Your task to perform on an android device: open app "Flipkart Online Shopping App" (install if not already installed), go to login, and select forgot password Image 0: 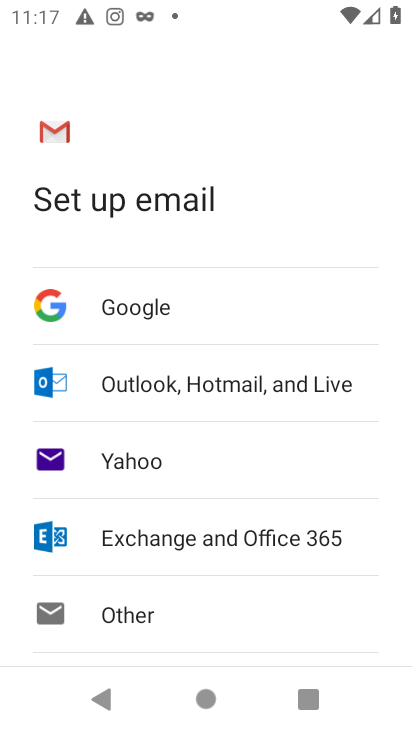
Step 0: press home button
Your task to perform on an android device: open app "Flipkart Online Shopping App" (install if not already installed), go to login, and select forgot password Image 1: 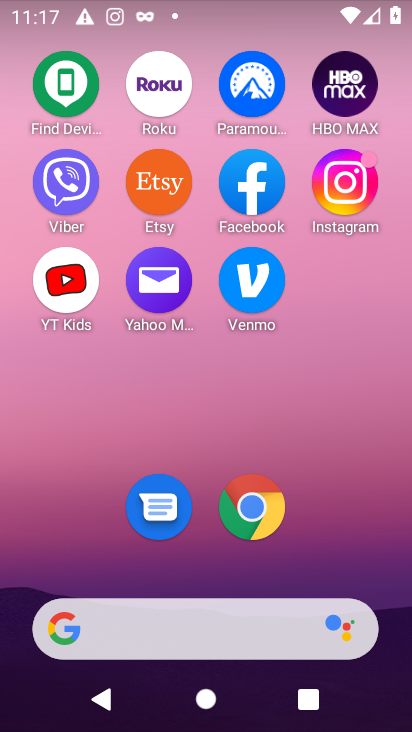
Step 1: drag from (189, 637) to (239, 125)
Your task to perform on an android device: open app "Flipkart Online Shopping App" (install if not already installed), go to login, and select forgot password Image 2: 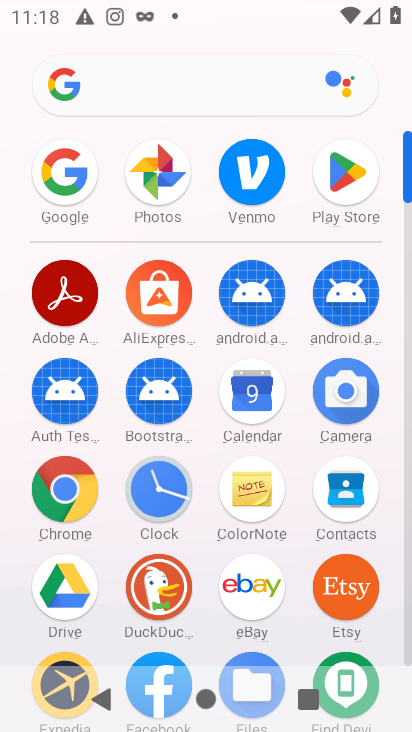
Step 2: click (347, 174)
Your task to perform on an android device: open app "Flipkart Online Shopping App" (install if not already installed), go to login, and select forgot password Image 3: 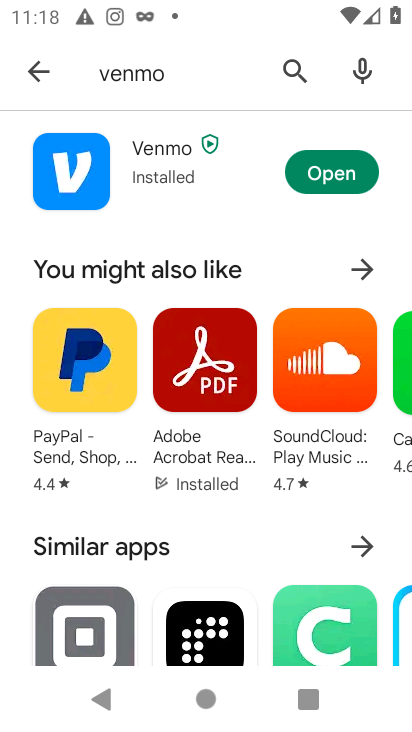
Step 3: click (289, 61)
Your task to perform on an android device: open app "Flipkart Online Shopping App" (install if not already installed), go to login, and select forgot password Image 4: 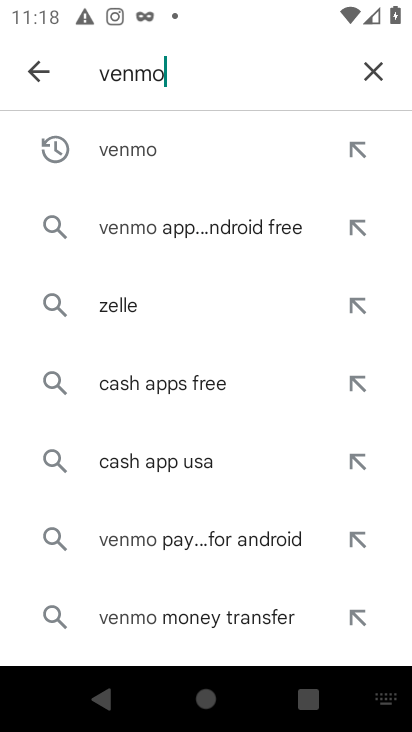
Step 4: click (379, 68)
Your task to perform on an android device: open app "Flipkart Online Shopping App" (install if not already installed), go to login, and select forgot password Image 5: 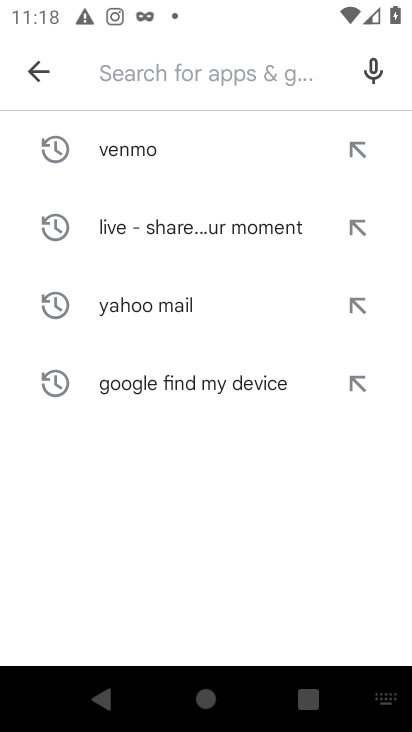
Step 5: type "Flipkart Online Shopping App"
Your task to perform on an android device: open app "Flipkart Online Shopping App" (install if not already installed), go to login, and select forgot password Image 6: 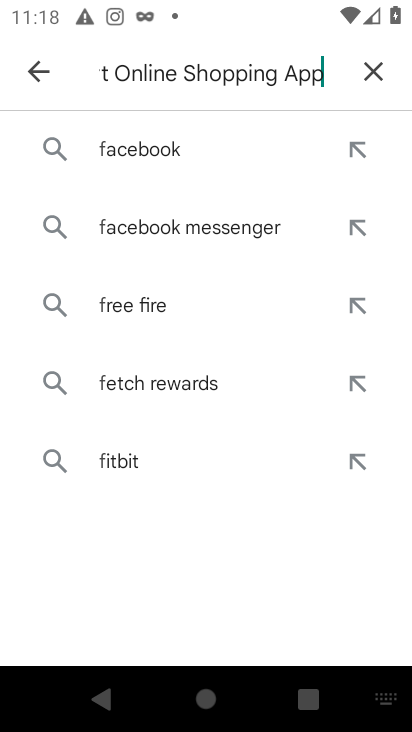
Step 6: type ""
Your task to perform on an android device: open app "Flipkart Online Shopping App" (install if not already installed), go to login, and select forgot password Image 7: 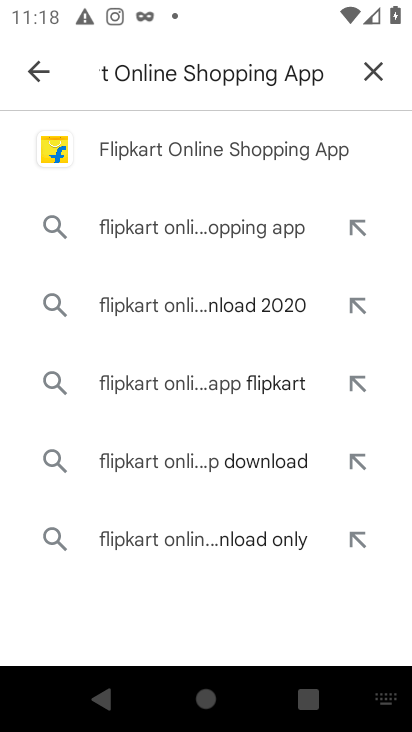
Step 7: click (180, 151)
Your task to perform on an android device: open app "Flipkart Online Shopping App" (install if not already installed), go to login, and select forgot password Image 8: 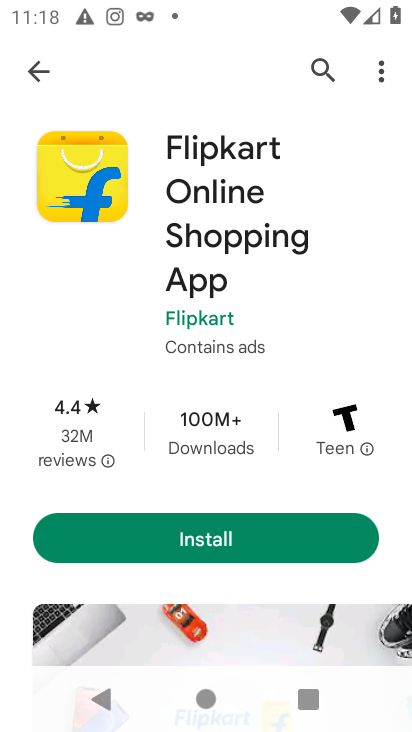
Step 8: click (242, 534)
Your task to perform on an android device: open app "Flipkart Online Shopping App" (install if not already installed), go to login, and select forgot password Image 9: 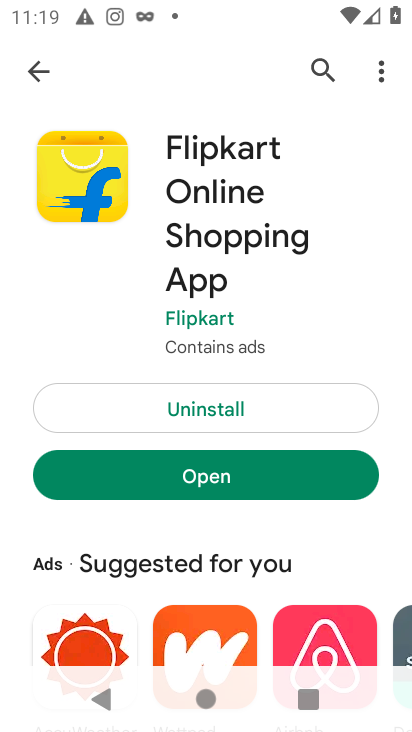
Step 9: click (227, 482)
Your task to perform on an android device: open app "Flipkart Online Shopping App" (install if not already installed), go to login, and select forgot password Image 10: 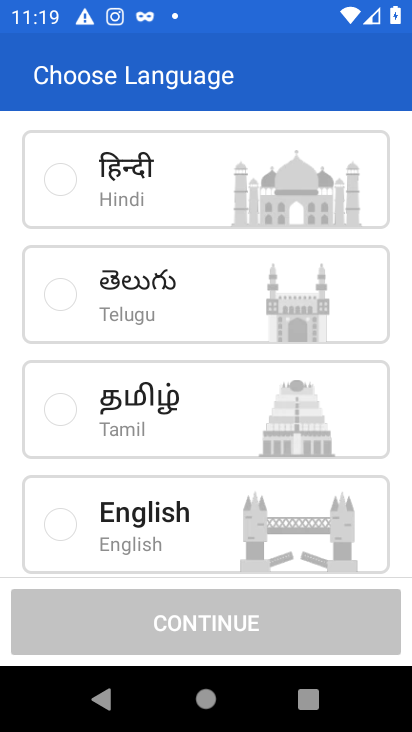
Step 10: click (60, 182)
Your task to perform on an android device: open app "Flipkart Online Shopping App" (install if not already installed), go to login, and select forgot password Image 11: 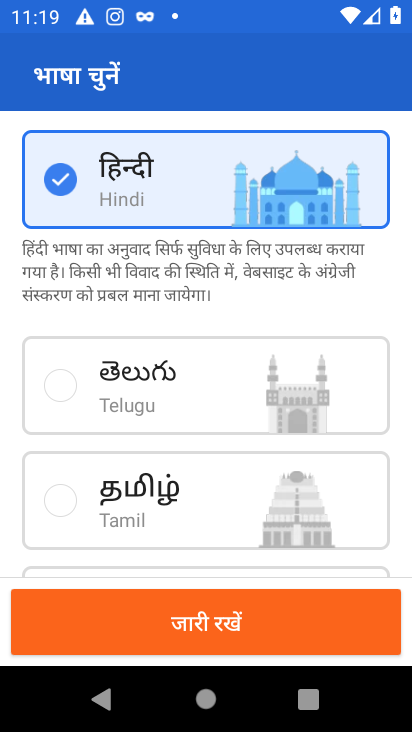
Step 11: click (237, 625)
Your task to perform on an android device: open app "Flipkart Online Shopping App" (install if not already installed), go to login, and select forgot password Image 12: 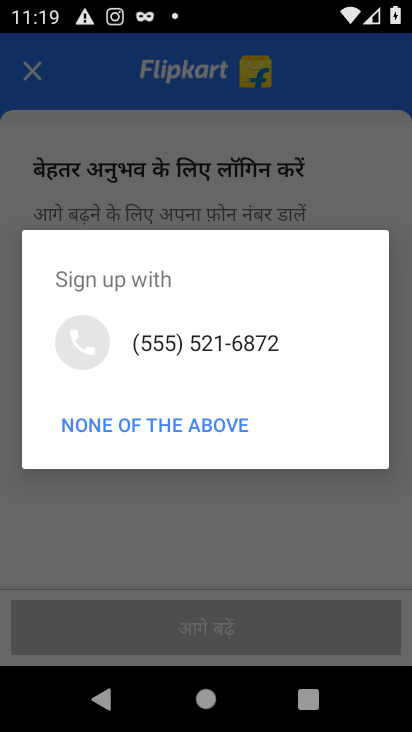
Step 12: click (219, 340)
Your task to perform on an android device: open app "Flipkart Online Shopping App" (install if not already installed), go to login, and select forgot password Image 13: 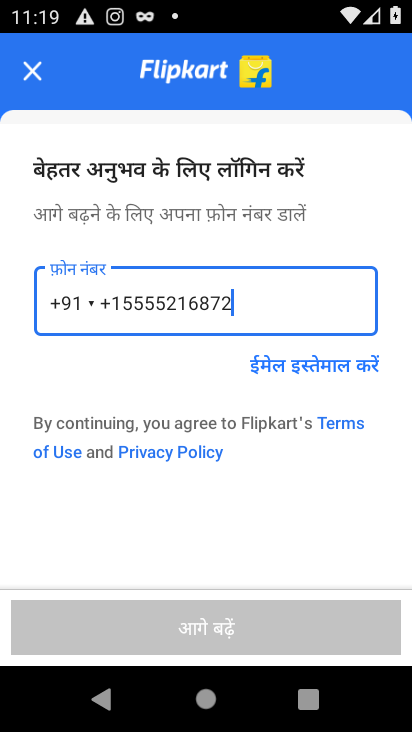
Step 13: click (315, 369)
Your task to perform on an android device: open app "Flipkart Online Shopping App" (install if not already installed), go to login, and select forgot password Image 14: 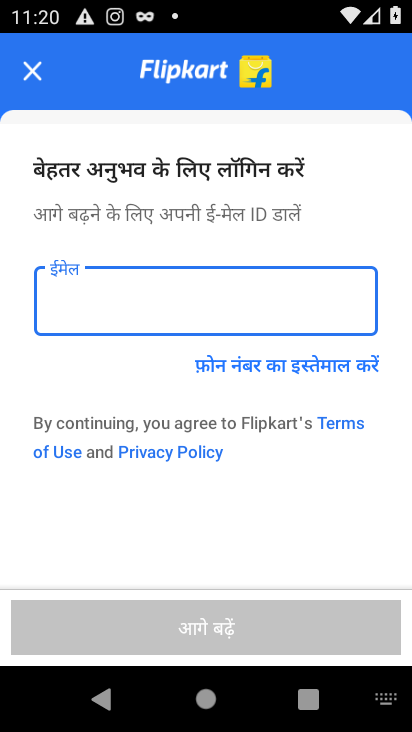
Step 14: drag from (167, 504) to (227, 324)
Your task to perform on an android device: open app "Flipkart Online Shopping App" (install if not already installed), go to login, and select forgot password Image 15: 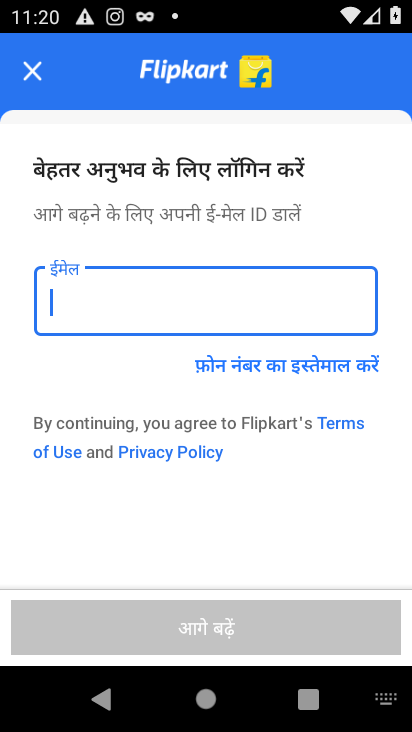
Step 15: click (188, 204)
Your task to perform on an android device: open app "Flipkart Online Shopping App" (install if not already installed), go to login, and select forgot password Image 16: 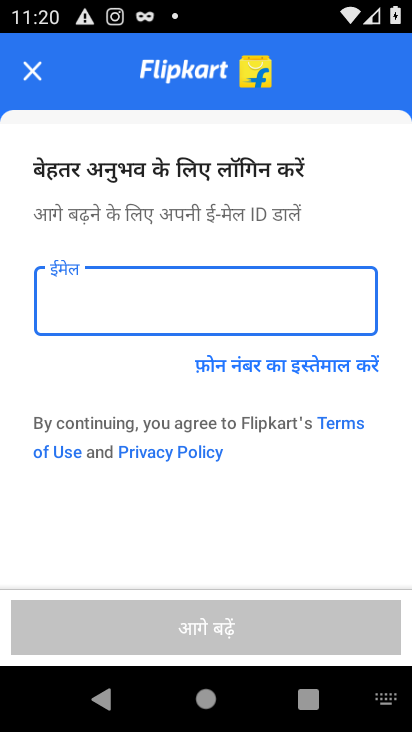
Step 16: drag from (251, 569) to (263, 251)
Your task to perform on an android device: open app "Flipkart Online Shopping App" (install if not already installed), go to login, and select forgot password Image 17: 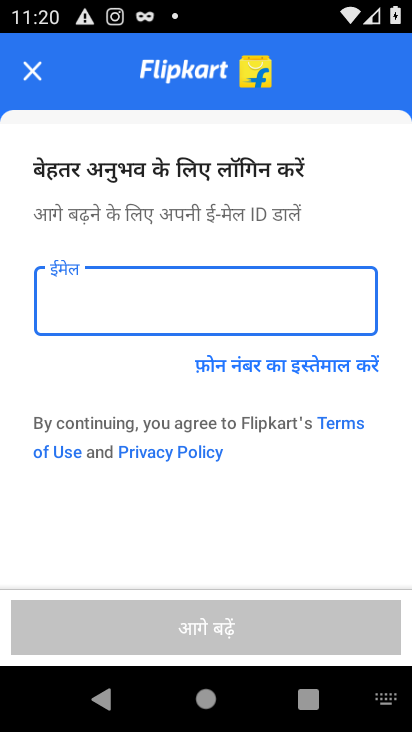
Step 17: drag from (226, 168) to (273, 497)
Your task to perform on an android device: open app "Flipkart Online Shopping App" (install if not already installed), go to login, and select forgot password Image 18: 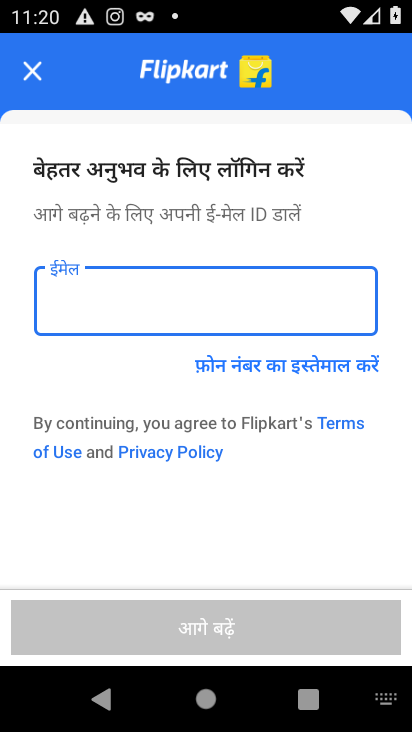
Step 18: click (202, 336)
Your task to perform on an android device: open app "Flipkart Online Shopping App" (install if not already installed), go to login, and select forgot password Image 19: 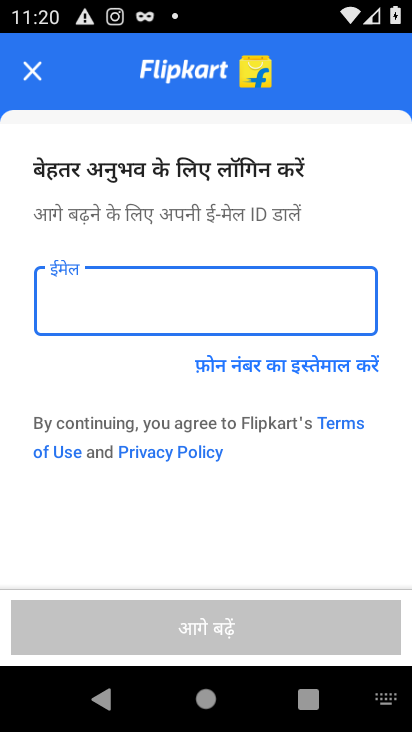
Step 19: click (220, 314)
Your task to perform on an android device: open app "Flipkart Online Shopping App" (install if not already installed), go to login, and select forgot password Image 20: 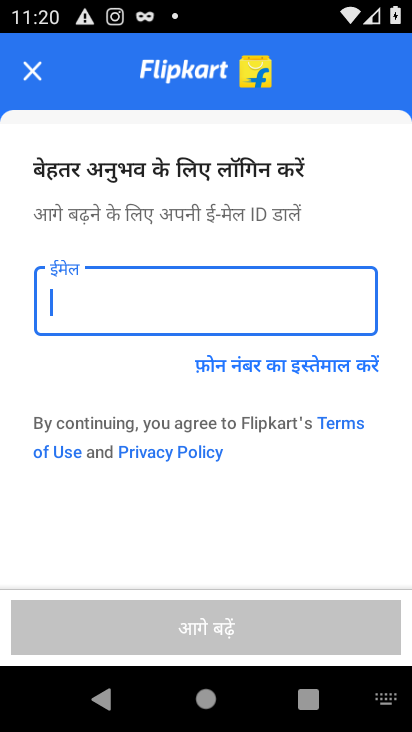
Step 20: click (220, 314)
Your task to perform on an android device: open app "Flipkart Online Shopping App" (install if not already installed), go to login, and select forgot password Image 21: 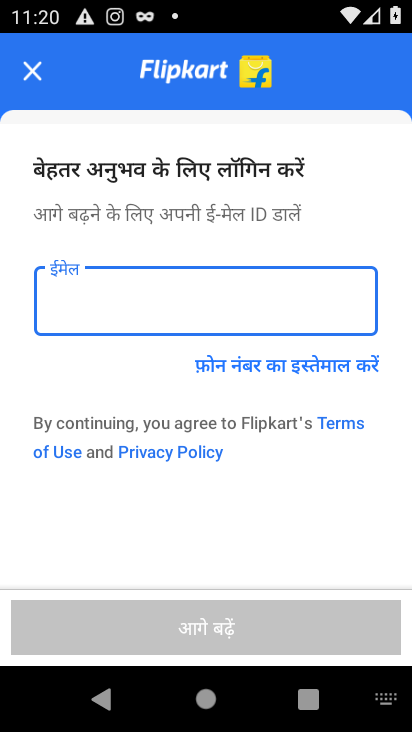
Step 21: click (220, 314)
Your task to perform on an android device: open app "Flipkart Online Shopping App" (install if not already installed), go to login, and select forgot password Image 22: 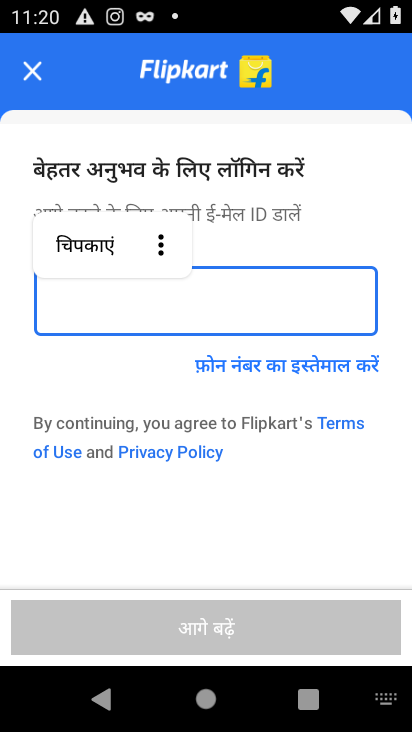
Step 22: task complete